Your task to perform on an android device: Open Google Chrome and click the shortcut for Amazon.com Image 0: 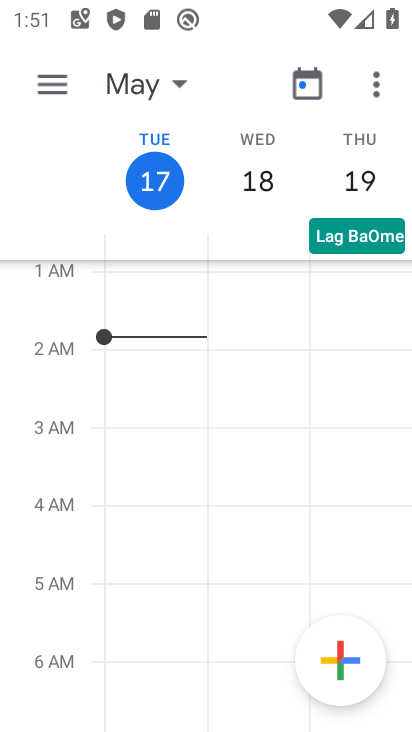
Step 0: press home button
Your task to perform on an android device: Open Google Chrome and click the shortcut for Amazon.com Image 1: 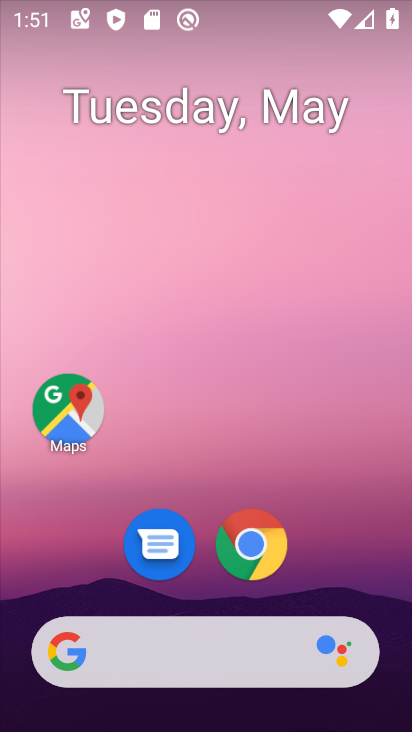
Step 1: click (252, 558)
Your task to perform on an android device: Open Google Chrome and click the shortcut for Amazon.com Image 2: 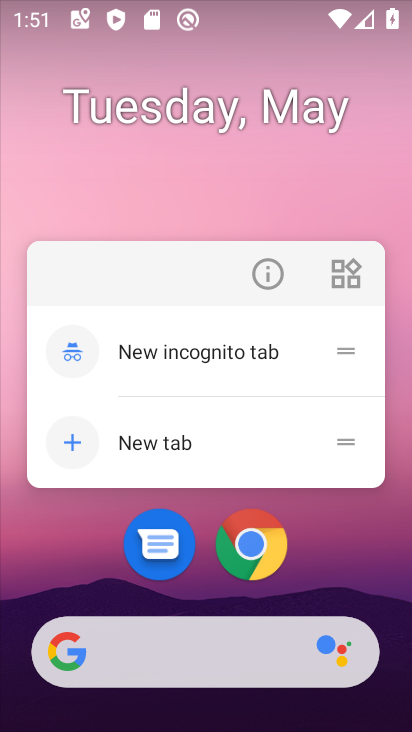
Step 2: click (251, 552)
Your task to perform on an android device: Open Google Chrome and click the shortcut for Amazon.com Image 3: 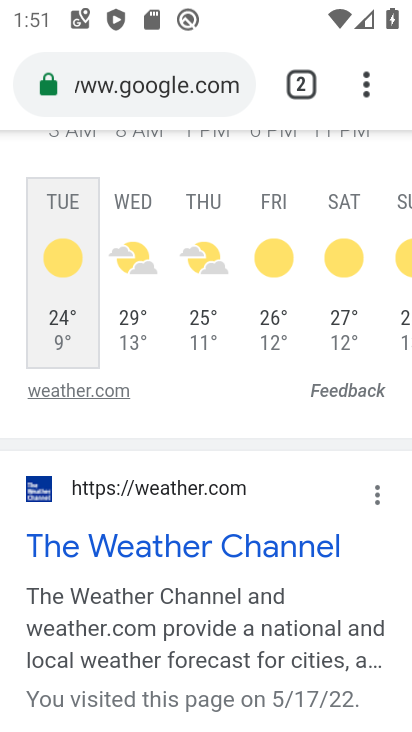
Step 3: click (196, 93)
Your task to perform on an android device: Open Google Chrome and click the shortcut for Amazon.com Image 4: 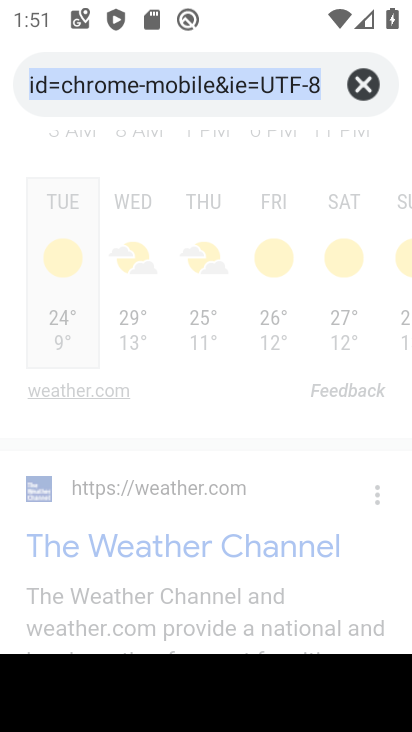
Step 4: click (375, 91)
Your task to perform on an android device: Open Google Chrome and click the shortcut for Amazon.com Image 5: 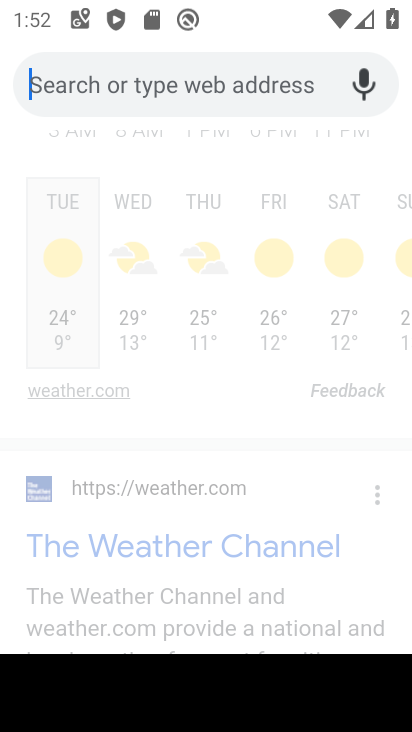
Step 5: type "amazon.com"
Your task to perform on an android device: Open Google Chrome and click the shortcut for Amazon.com Image 6: 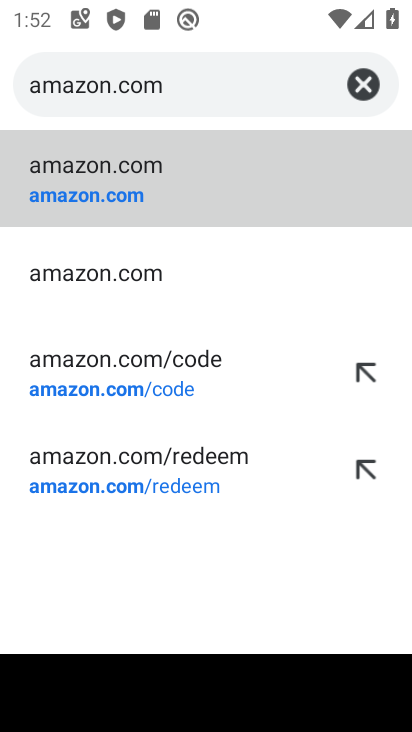
Step 6: click (65, 198)
Your task to perform on an android device: Open Google Chrome and click the shortcut for Amazon.com Image 7: 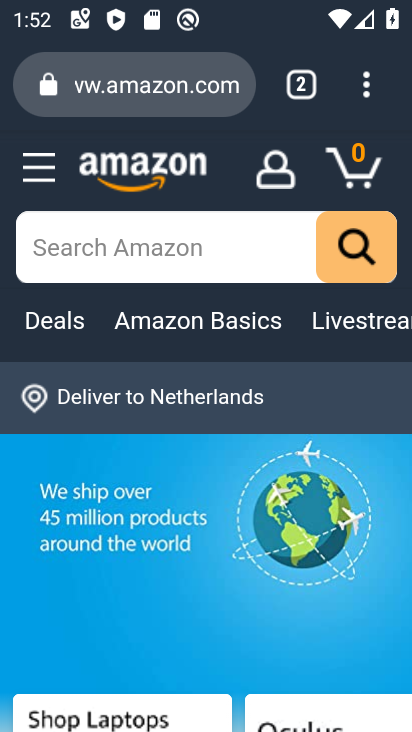
Step 7: task complete